Your task to perform on an android device: open app "Messenger Lite" Image 0: 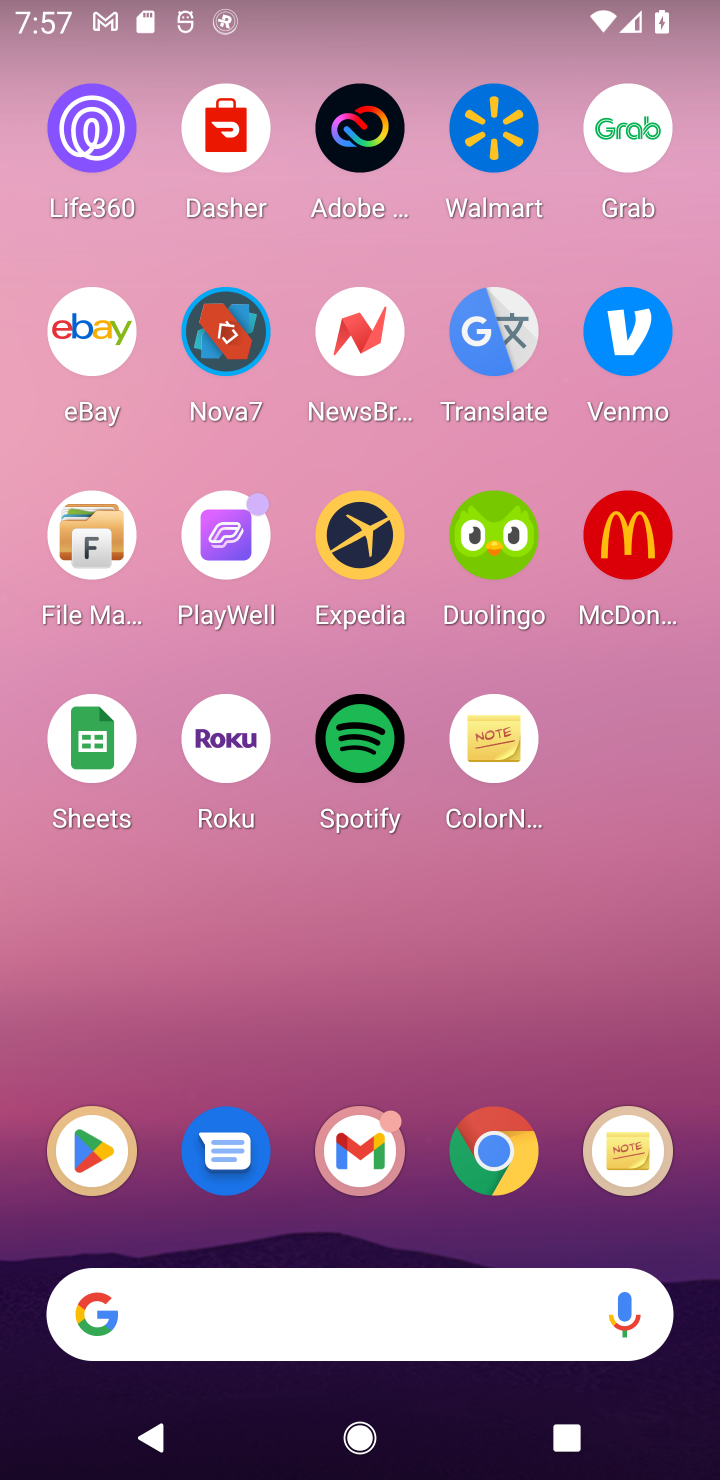
Step 0: click (79, 1146)
Your task to perform on an android device: open app "Messenger Lite" Image 1: 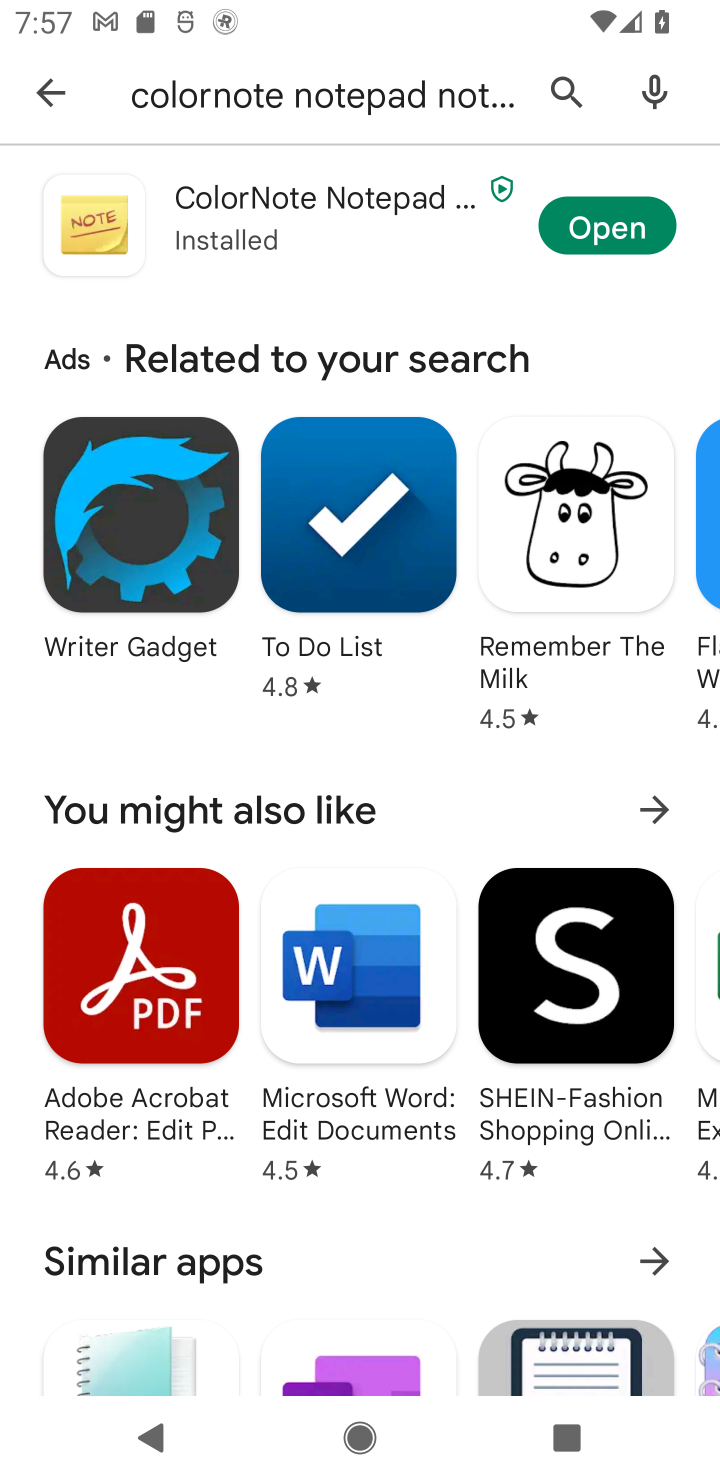
Step 1: click (581, 90)
Your task to perform on an android device: open app "Messenger Lite" Image 2: 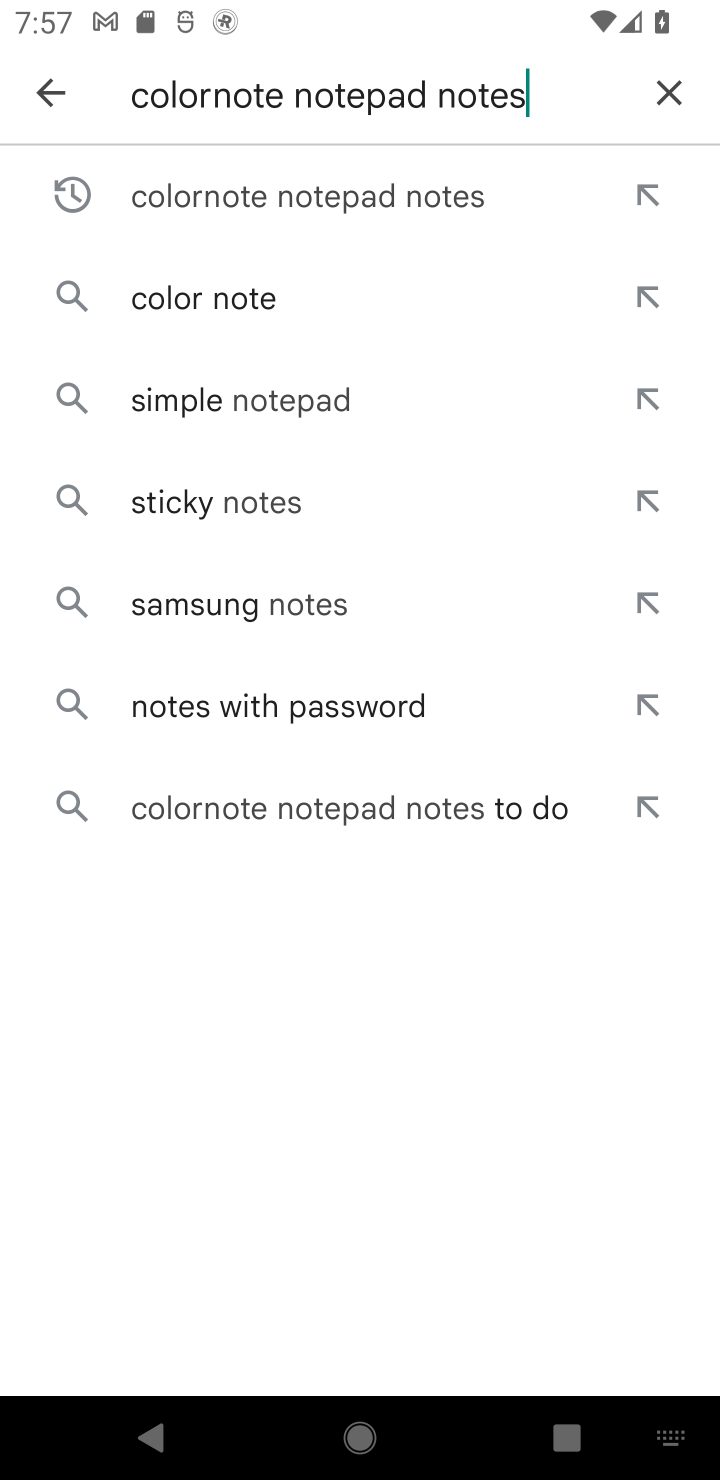
Step 2: click (669, 85)
Your task to perform on an android device: open app "Messenger Lite" Image 3: 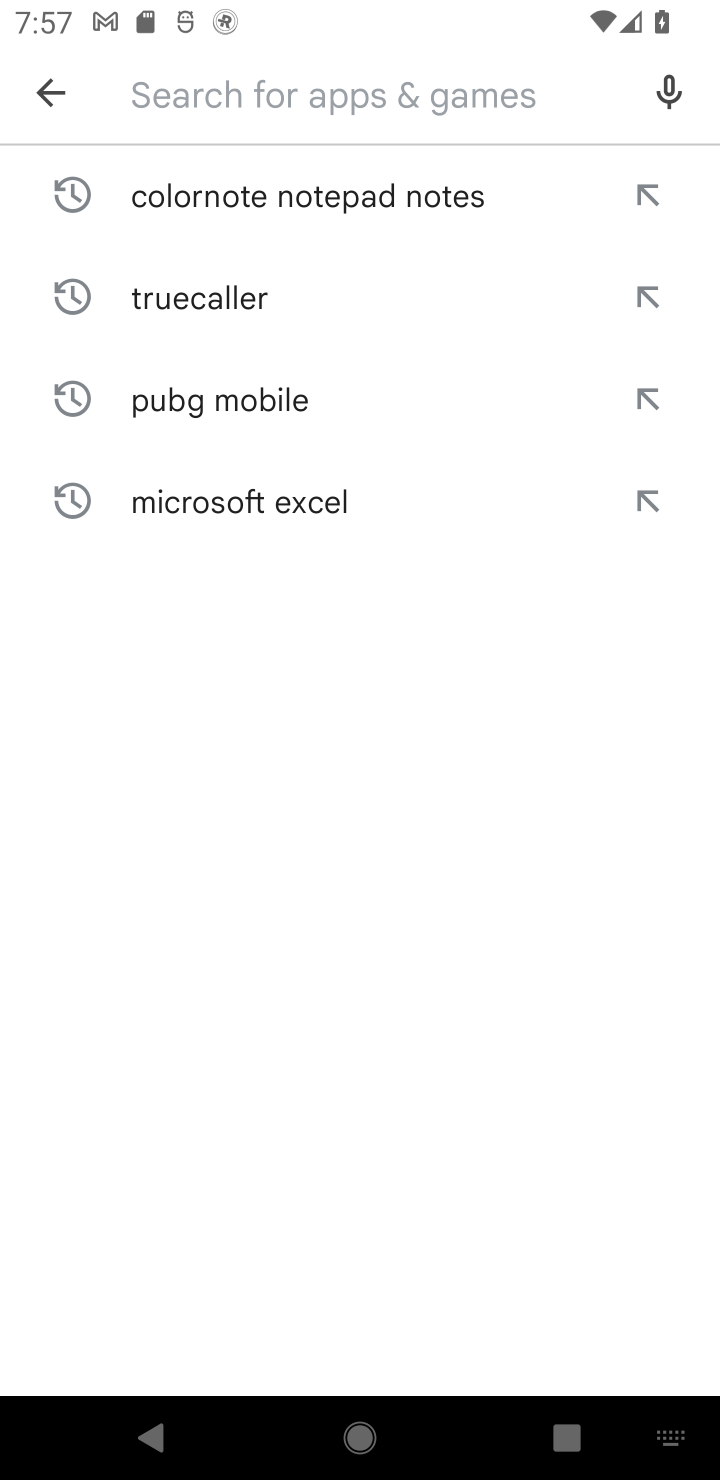
Step 3: type "Messenger Lite"
Your task to perform on an android device: open app "Messenger Lite" Image 4: 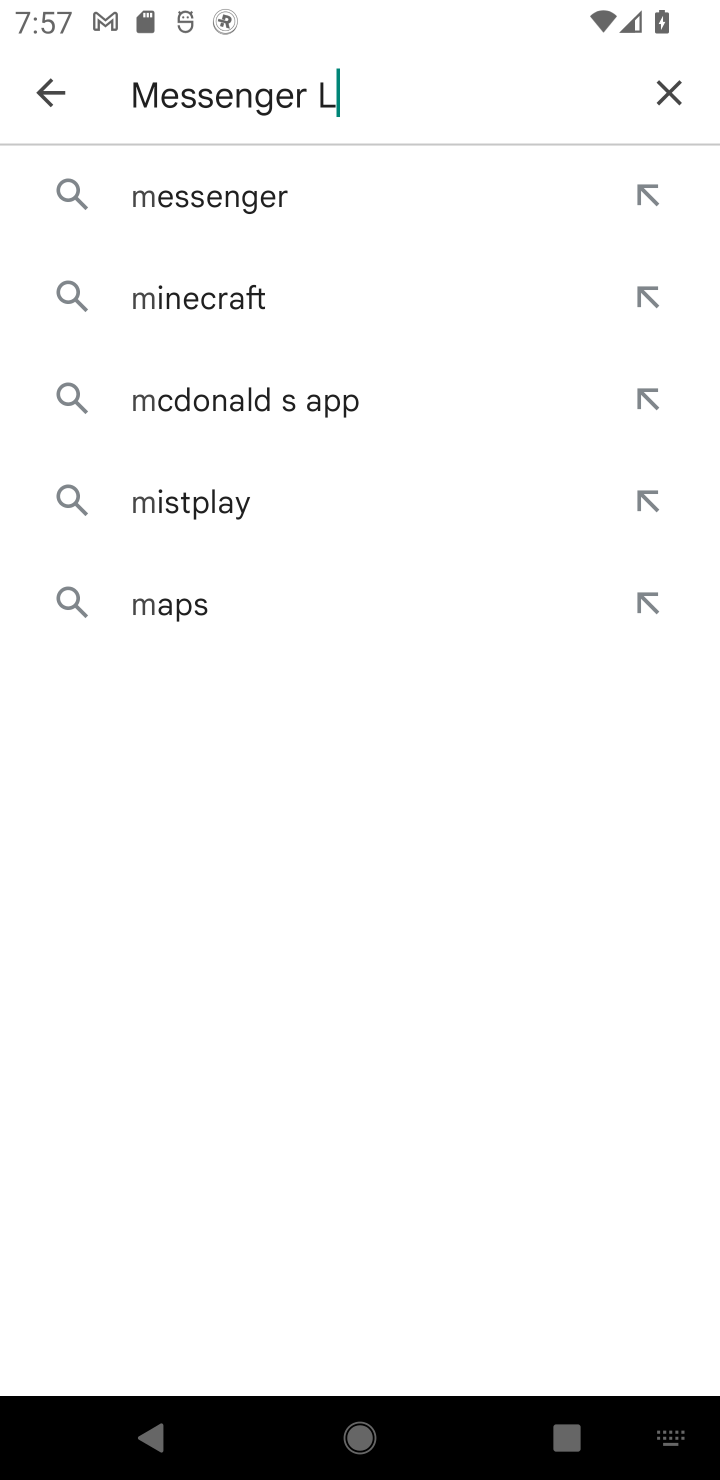
Step 4: type ""
Your task to perform on an android device: open app "Messenger Lite" Image 5: 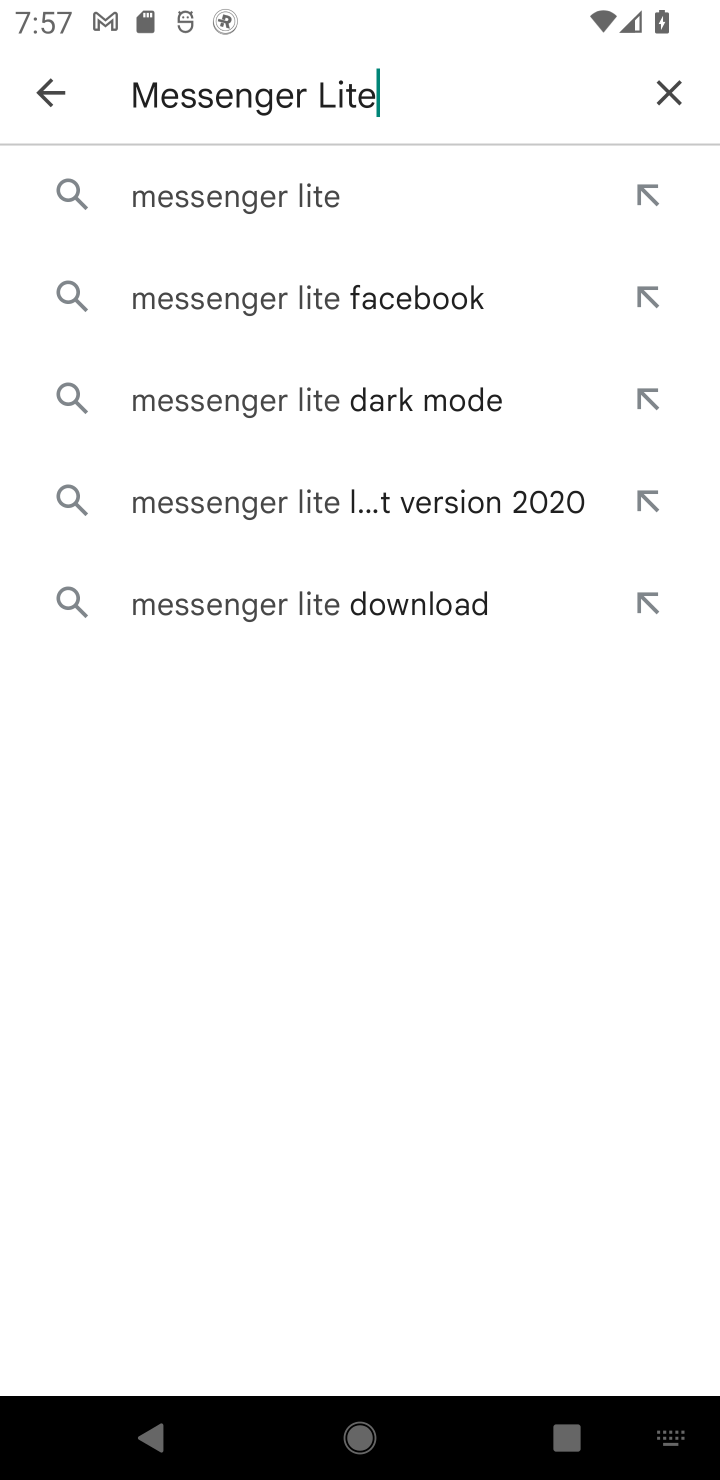
Step 5: click (325, 188)
Your task to perform on an android device: open app "Messenger Lite" Image 6: 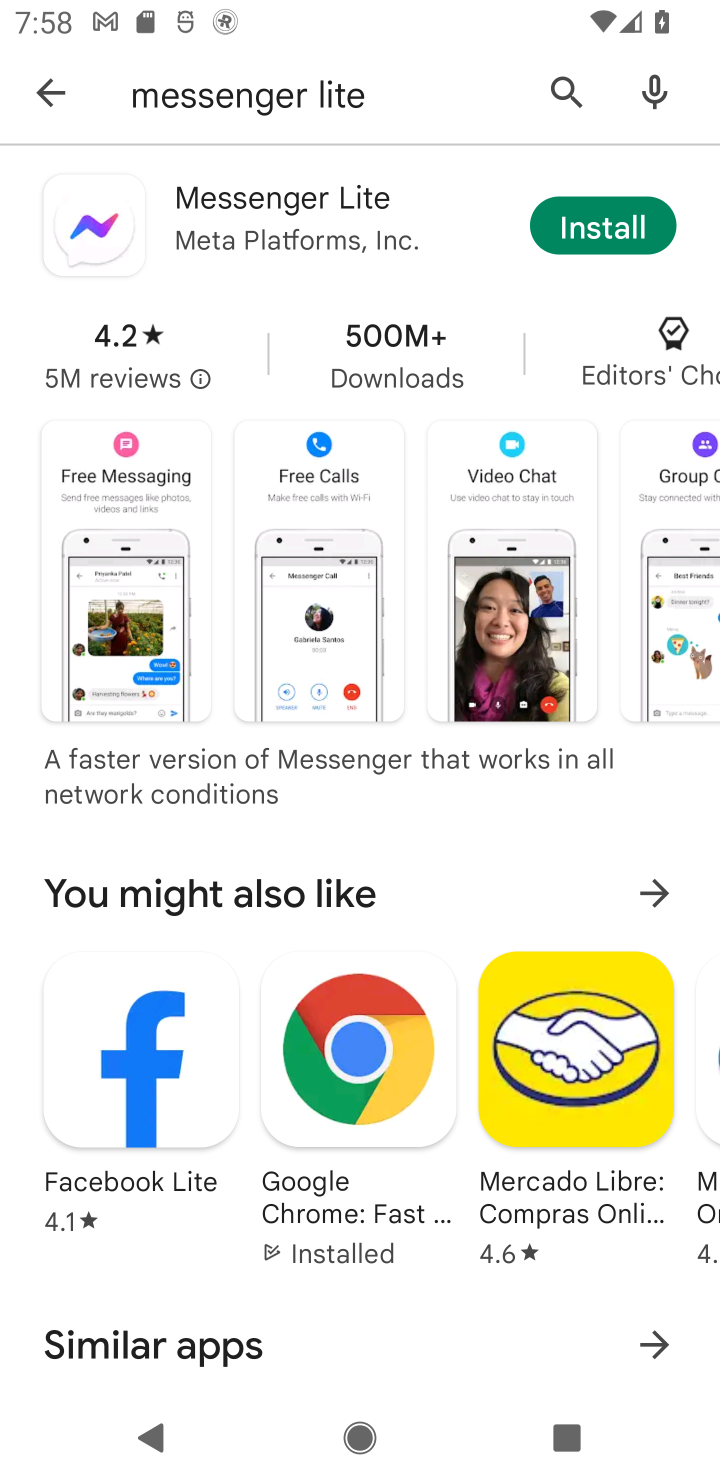
Step 6: task complete